Your task to perform on an android device: Do I have any events today? Image 0: 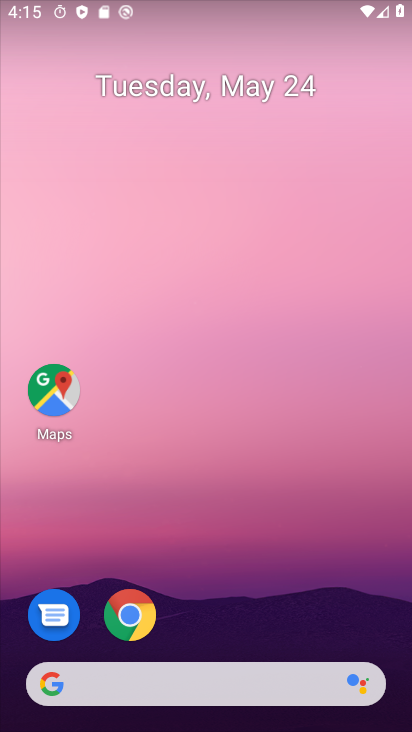
Step 0: drag from (241, 614) to (280, 69)
Your task to perform on an android device: Do I have any events today? Image 1: 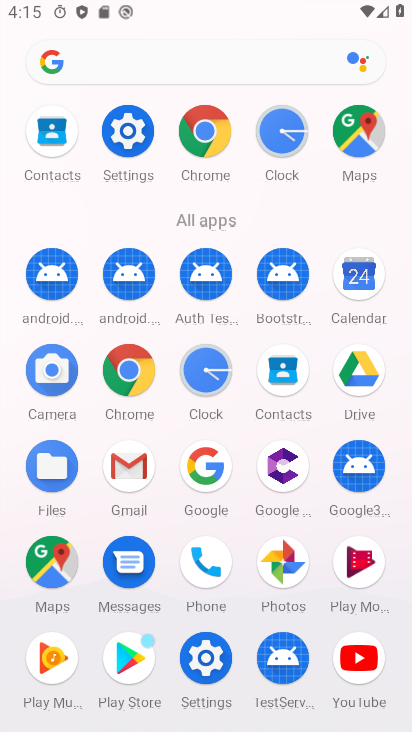
Step 1: click (354, 265)
Your task to perform on an android device: Do I have any events today? Image 2: 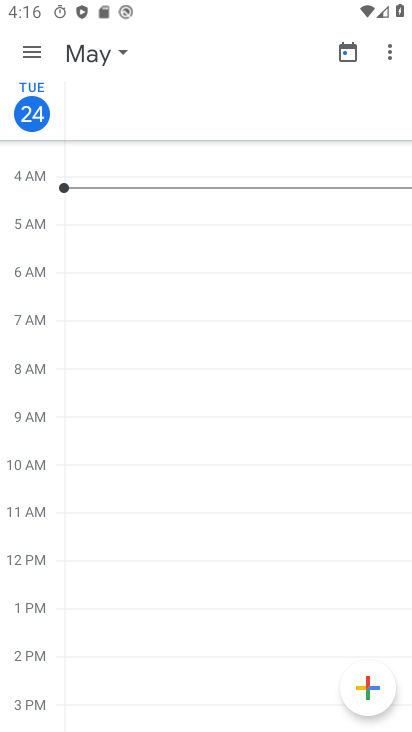
Step 2: click (26, 52)
Your task to perform on an android device: Do I have any events today? Image 3: 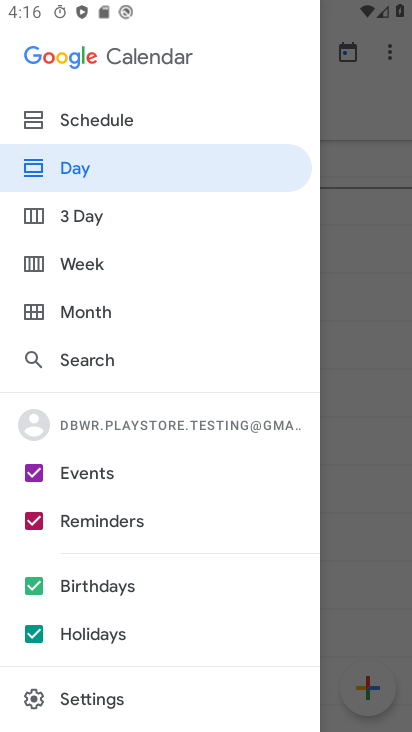
Step 3: click (107, 113)
Your task to perform on an android device: Do I have any events today? Image 4: 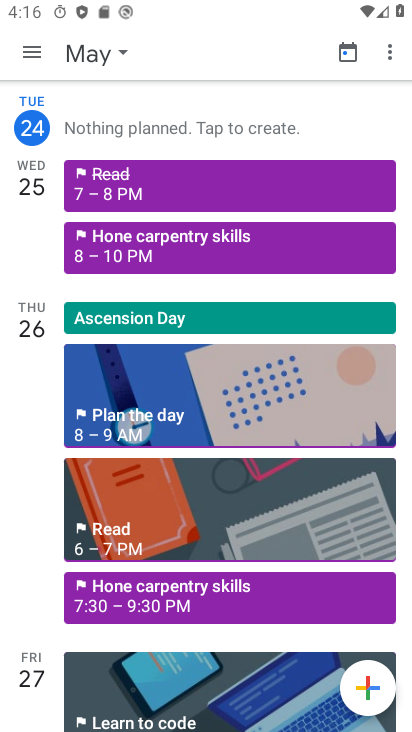
Step 4: task complete